Your task to perform on an android device: turn off translation in the chrome app Image 0: 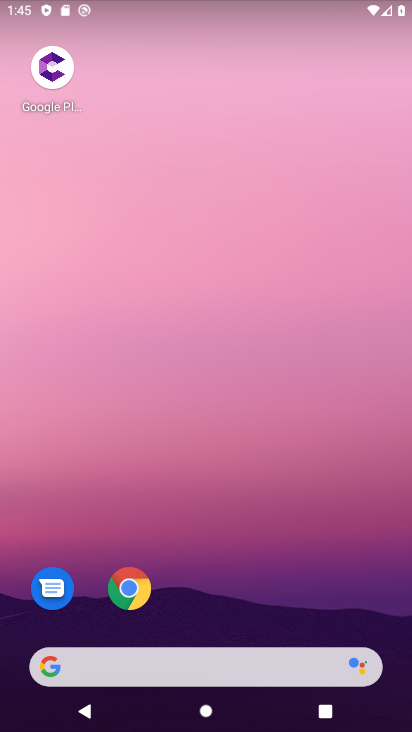
Step 0: click (136, 593)
Your task to perform on an android device: turn off translation in the chrome app Image 1: 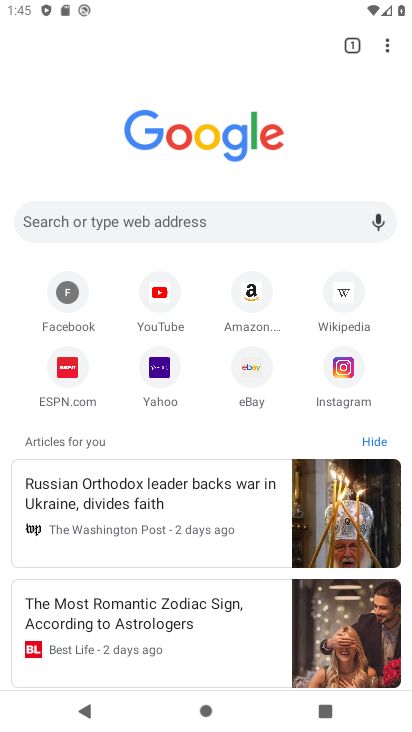
Step 1: click (385, 43)
Your task to perform on an android device: turn off translation in the chrome app Image 2: 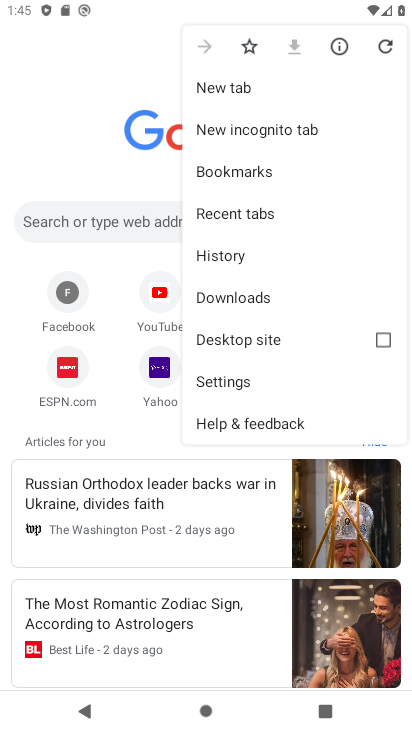
Step 2: click (260, 375)
Your task to perform on an android device: turn off translation in the chrome app Image 3: 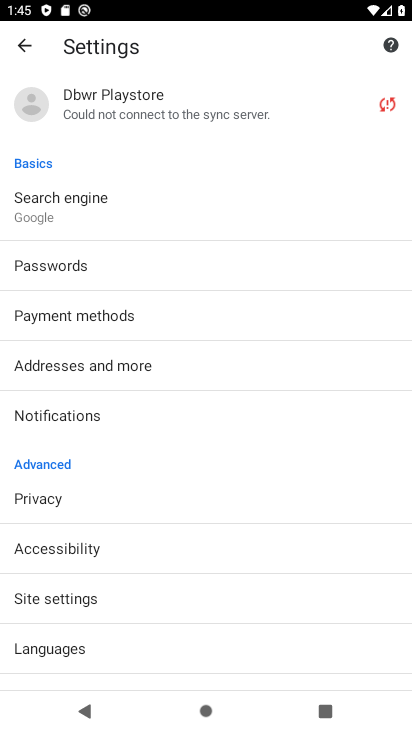
Step 3: click (139, 647)
Your task to perform on an android device: turn off translation in the chrome app Image 4: 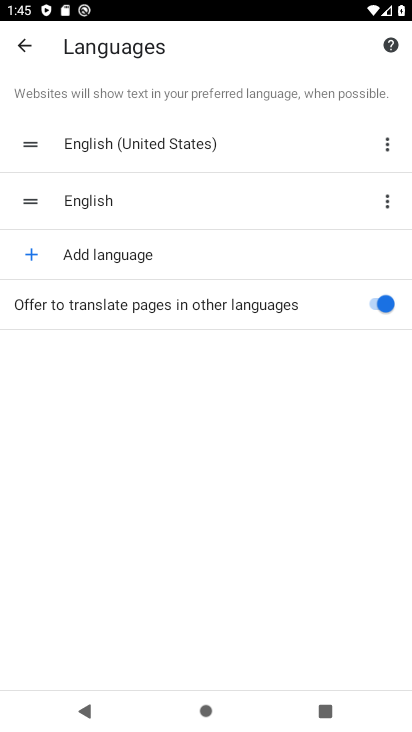
Step 4: click (373, 304)
Your task to perform on an android device: turn off translation in the chrome app Image 5: 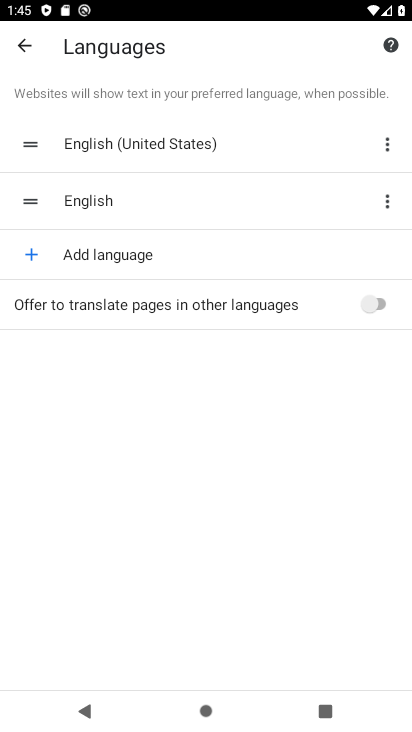
Step 5: task complete